Your task to perform on an android device: Go to settings Image 0: 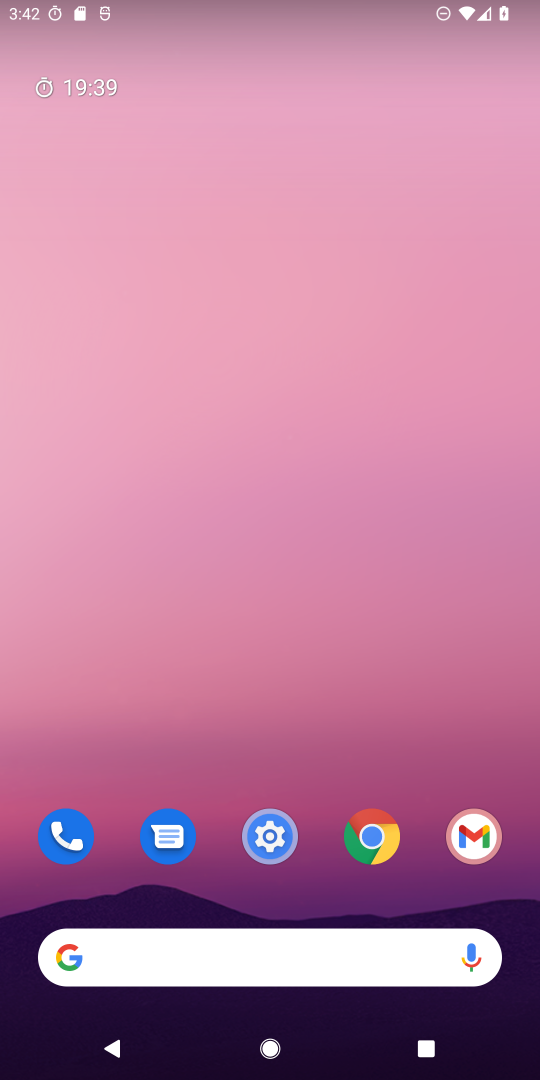
Step 0: click (266, 860)
Your task to perform on an android device: Go to settings Image 1: 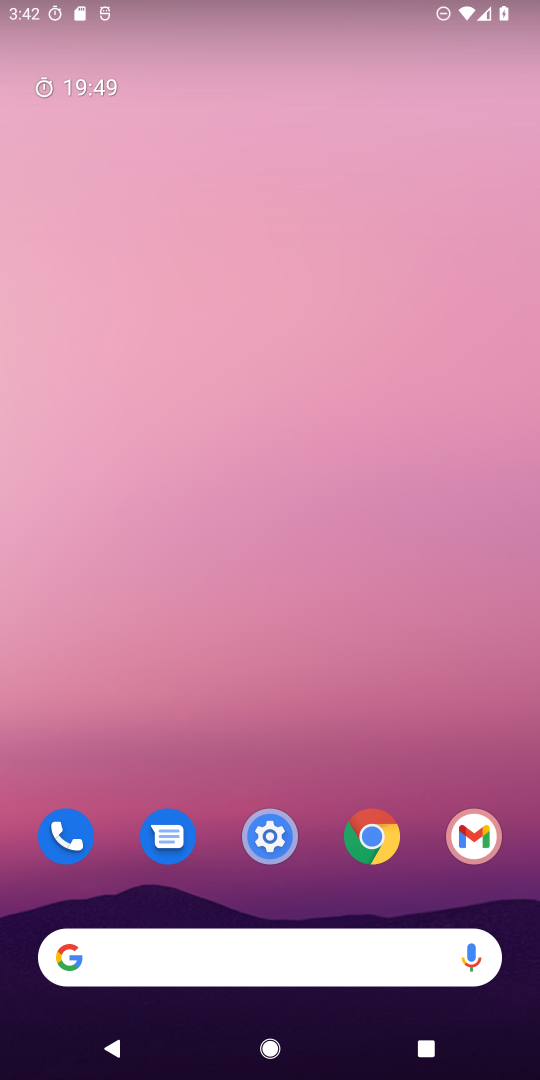
Step 1: click (281, 848)
Your task to perform on an android device: Go to settings Image 2: 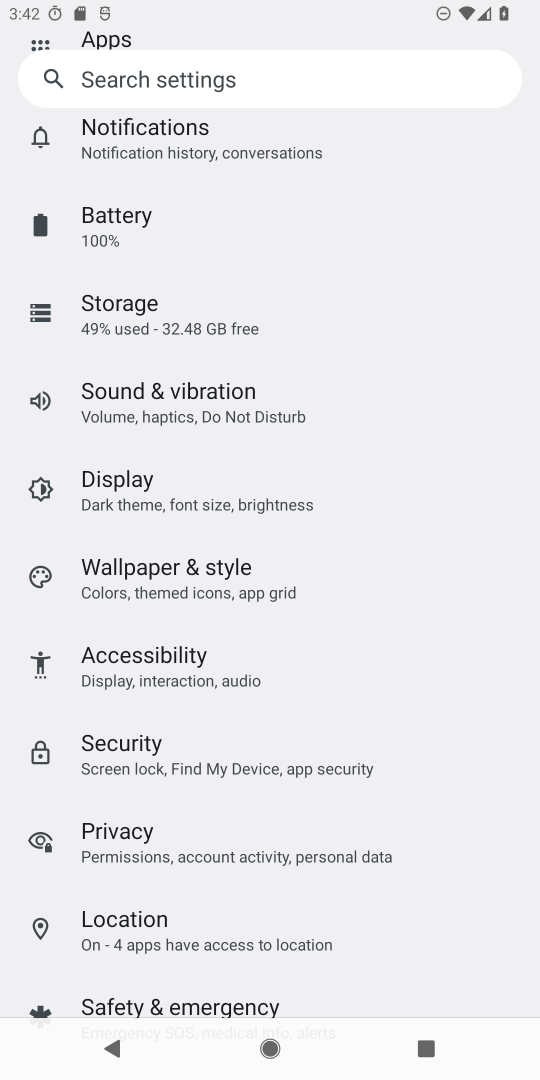
Step 2: task complete